Your task to perform on an android device: Find coffee shops on Maps Image 0: 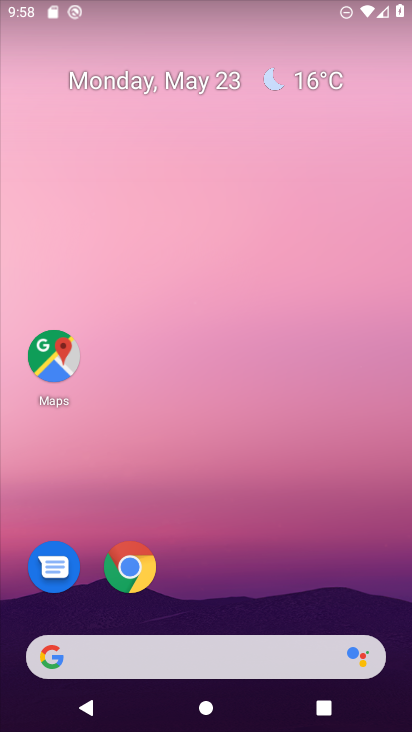
Step 0: drag from (191, 598) to (219, 131)
Your task to perform on an android device: Find coffee shops on Maps Image 1: 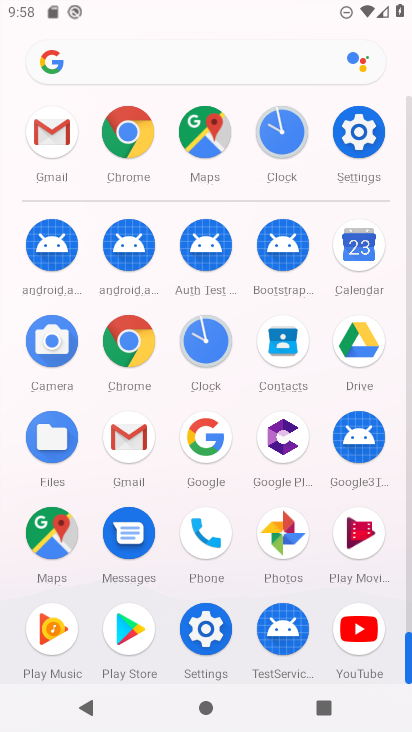
Step 1: drag from (245, 634) to (226, 215)
Your task to perform on an android device: Find coffee shops on Maps Image 2: 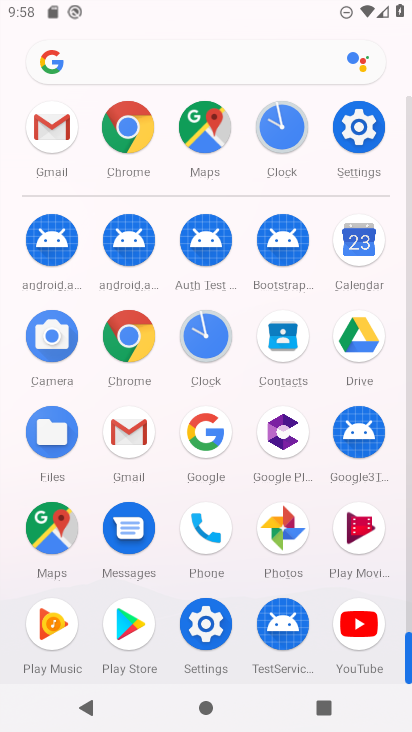
Step 2: click (46, 529)
Your task to perform on an android device: Find coffee shops on Maps Image 3: 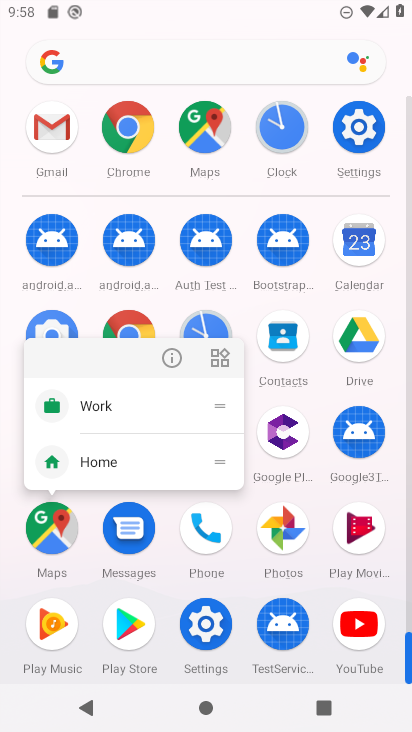
Step 3: click (174, 353)
Your task to perform on an android device: Find coffee shops on Maps Image 4: 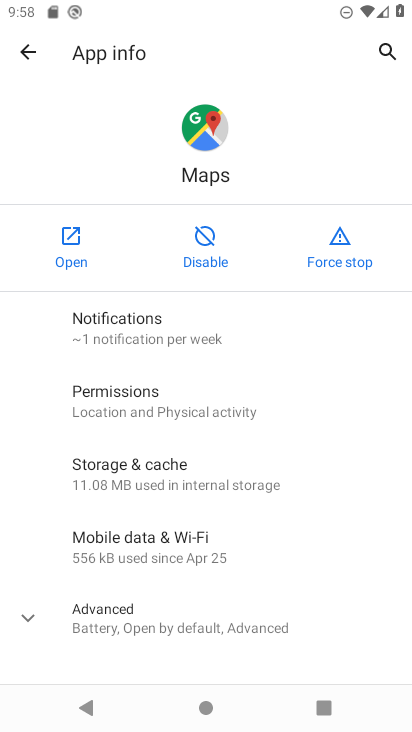
Step 4: click (75, 257)
Your task to perform on an android device: Find coffee shops on Maps Image 5: 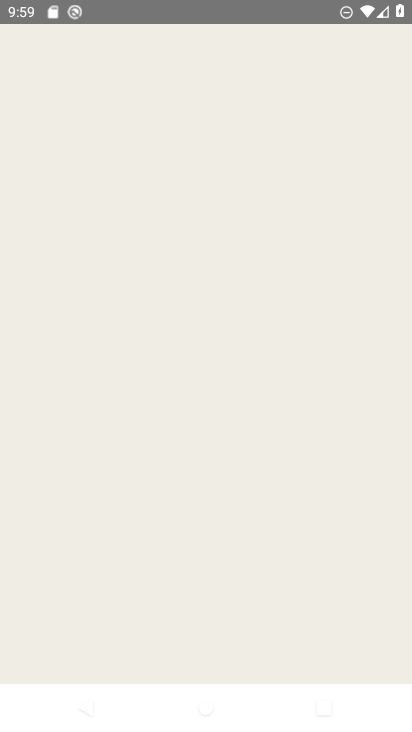
Step 5: drag from (237, 635) to (250, 361)
Your task to perform on an android device: Find coffee shops on Maps Image 6: 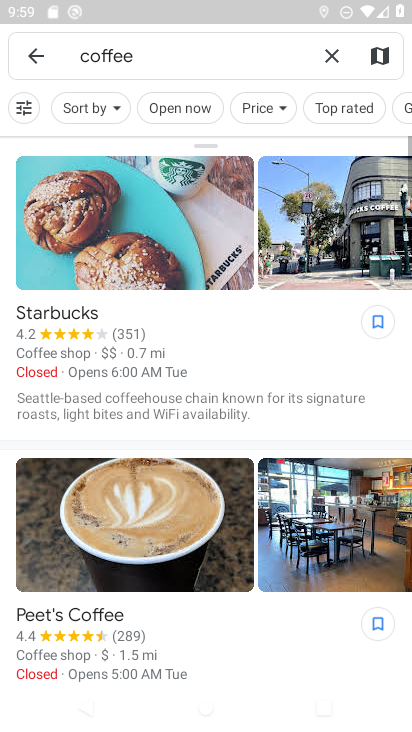
Step 6: click (37, 68)
Your task to perform on an android device: Find coffee shops on Maps Image 7: 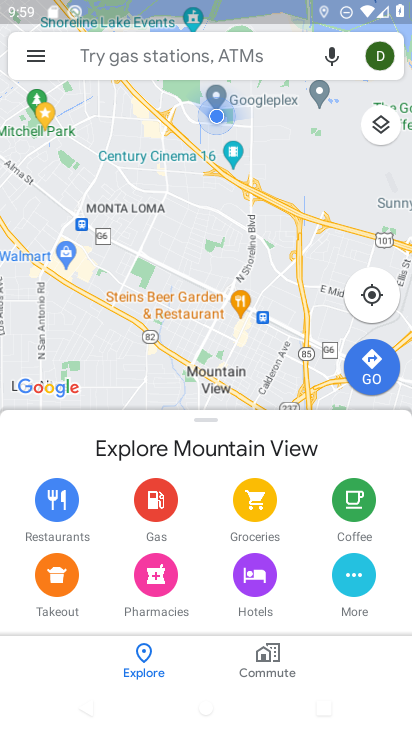
Step 7: click (105, 47)
Your task to perform on an android device: Find coffee shops on Maps Image 8: 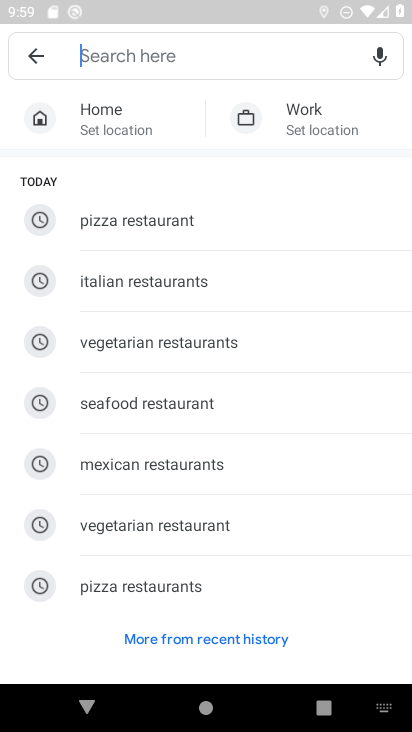
Step 8: drag from (169, 542) to (216, 165)
Your task to perform on an android device: Find coffee shops on Maps Image 9: 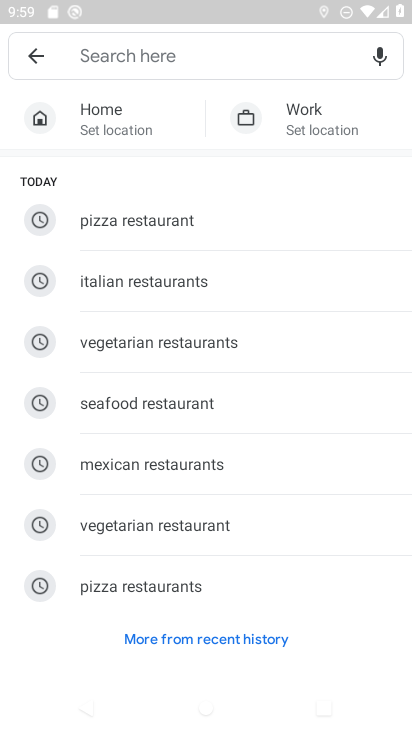
Step 9: click (183, 649)
Your task to perform on an android device: Find coffee shops on Maps Image 10: 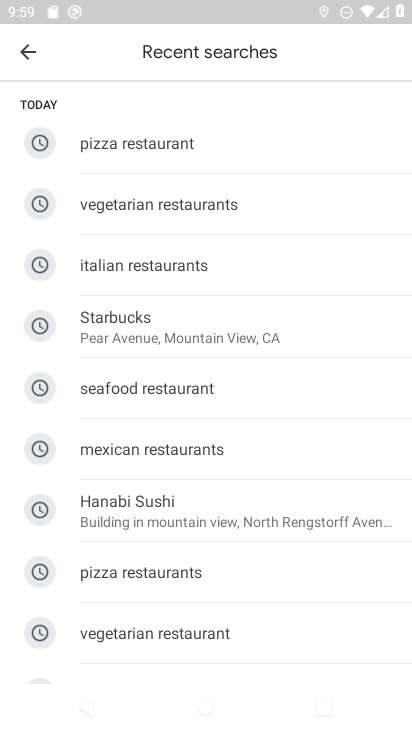
Step 10: drag from (180, 594) to (243, 148)
Your task to perform on an android device: Find coffee shops on Maps Image 11: 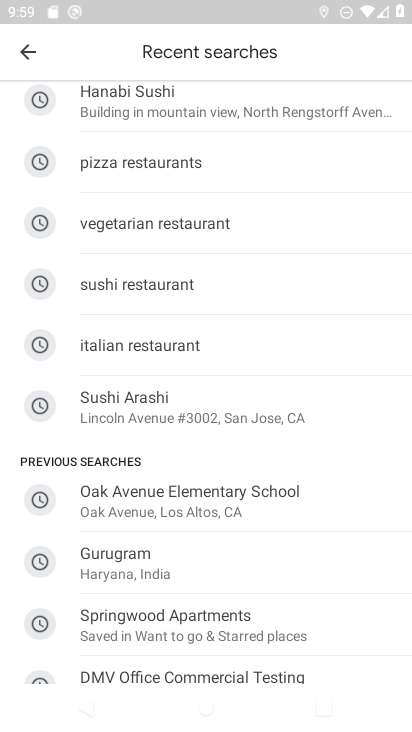
Step 11: drag from (164, 282) to (232, 724)
Your task to perform on an android device: Find coffee shops on Maps Image 12: 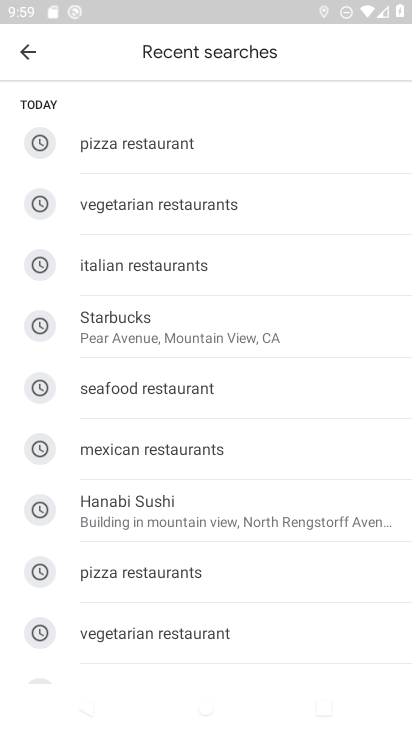
Step 12: drag from (152, 191) to (245, 700)
Your task to perform on an android device: Find coffee shops on Maps Image 13: 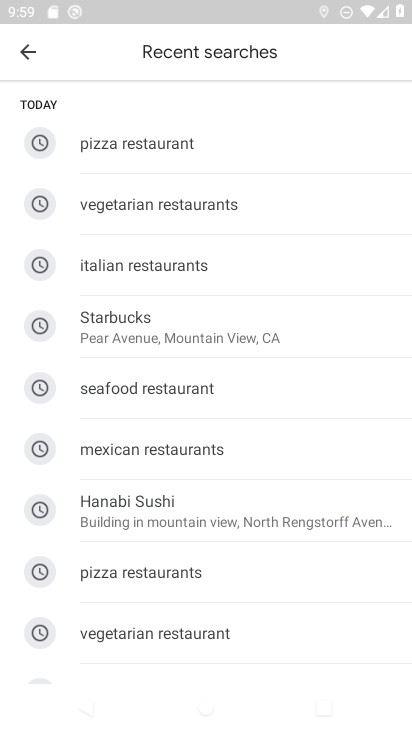
Step 13: drag from (178, 184) to (262, 620)
Your task to perform on an android device: Find coffee shops on Maps Image 14: 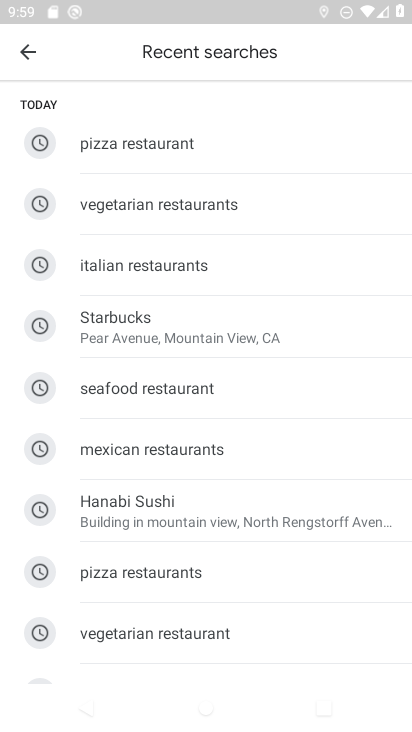
Step 14: drag from (249, 588) to (301, 137)
Your task to perform on an android device: Find coffee shops on Maps Image 15: 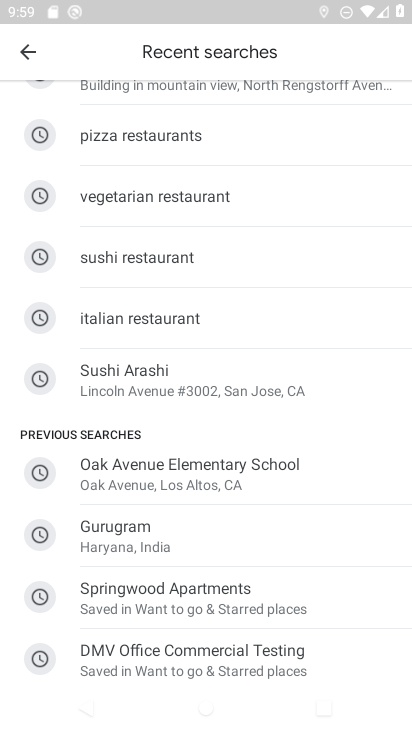
Step 15: drag from (277, 104) to (262, 689)
Your task to perform on an android device: Find coffee shops on Maps Image 16: 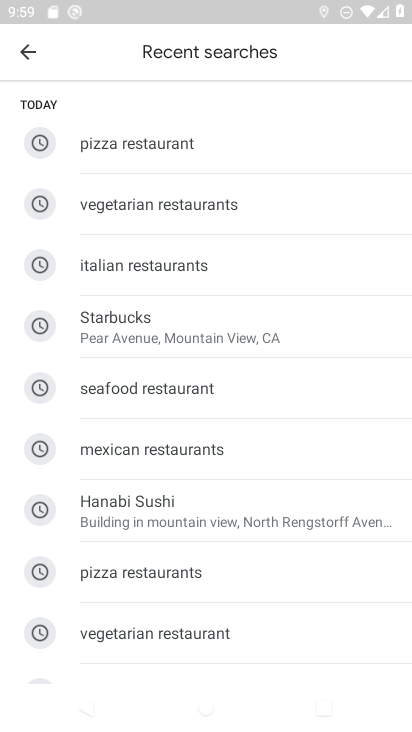
Step 16: drag from (227, 414) to (312, 695)
Your task to perform on an android device: Find coffee shops on Maps Image 17: 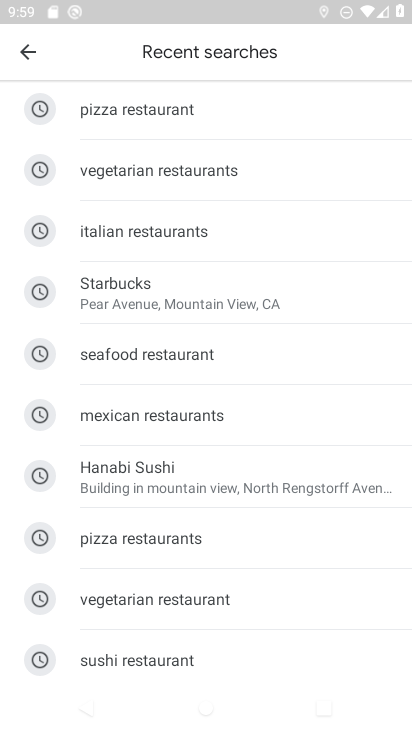
Step 17: click (35, 56)
Your task to perform on an android device: Find coffee shops on Maps Image 18: 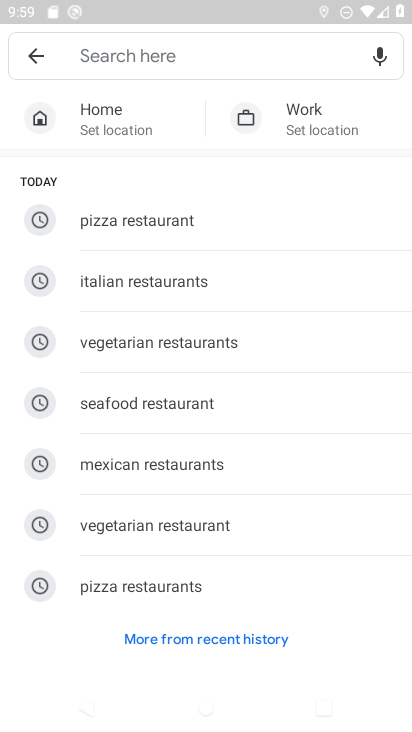
Step 18: click (159, 54)
Your task to perform on an android device: Find coffee shops on Maps Image 19: 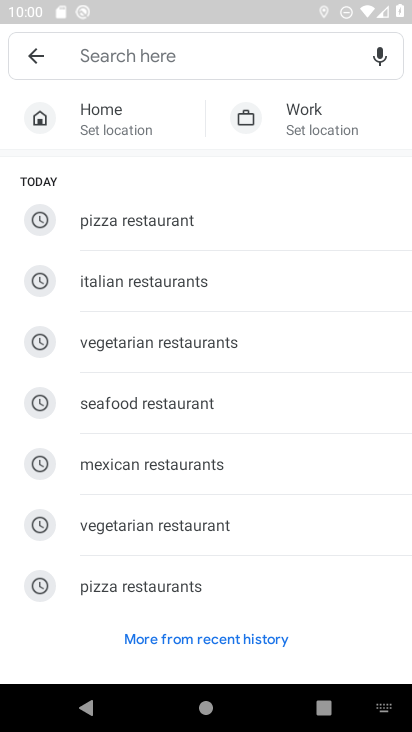
Step 19: type "coffee"
Your task to perform on an android device: Find coffee shops on Maps Image 20: 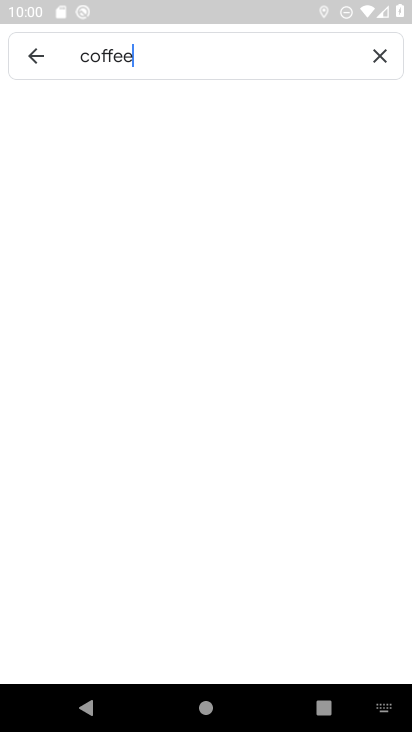
Step 20: type ""
Your task to perform on an android device: Find coffee shops on Maps Image 21: 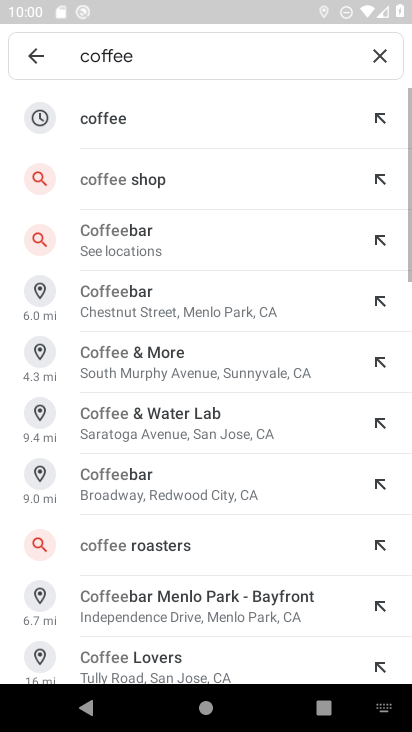
Step 21: click (113, 109)
Your task to perform on an android device: Find coffee shops on Maps Image 22: 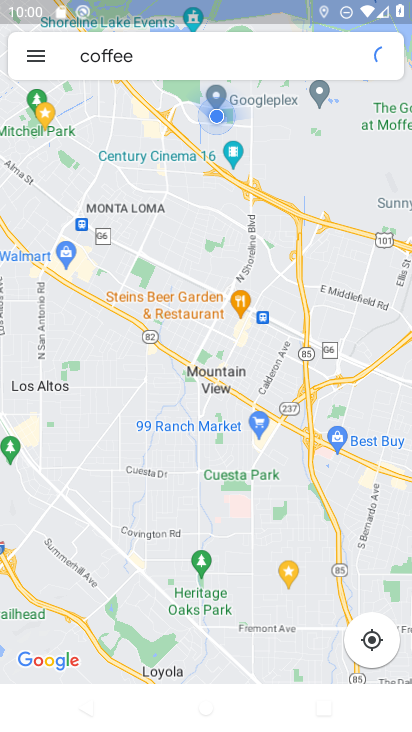
Step 22: task complete